Your task to perform on an android device: Toggle the flashlight Image 0: 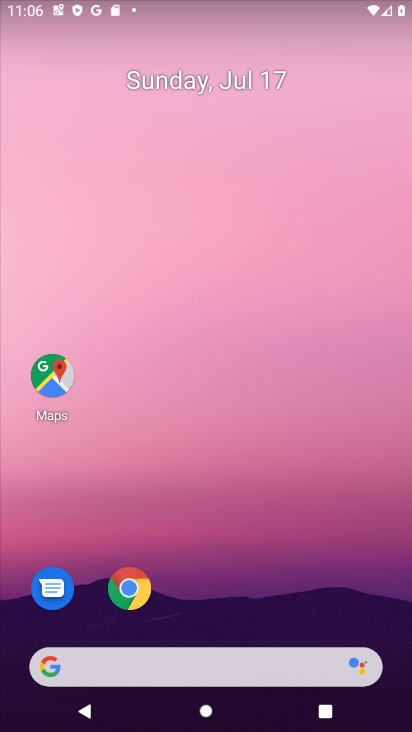
Step 0: drag from (209, 613) to (259, 135)
Your task to perform on an android device: Toggle the flashlight Image 1: 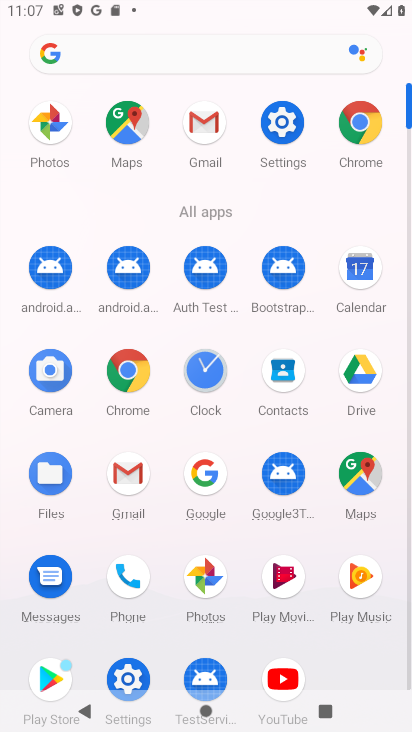
Step 1: click (279, 117)
Your task to perform on an android device: Toggle the flashlight Image 2: 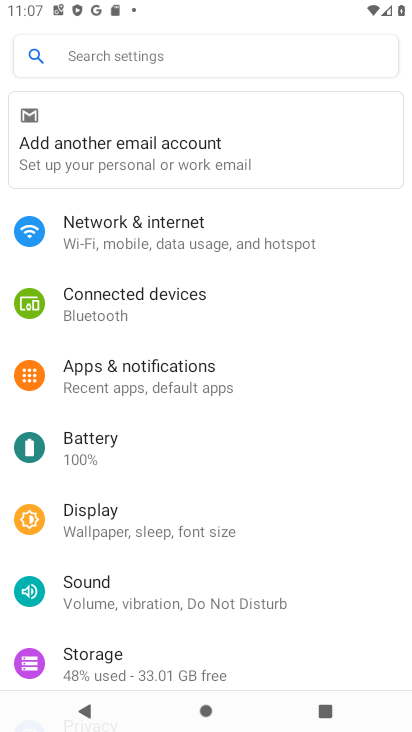
Step 2: click (111, 51)
Your task to perform on an android device: Toggle the flashlight Image 3: 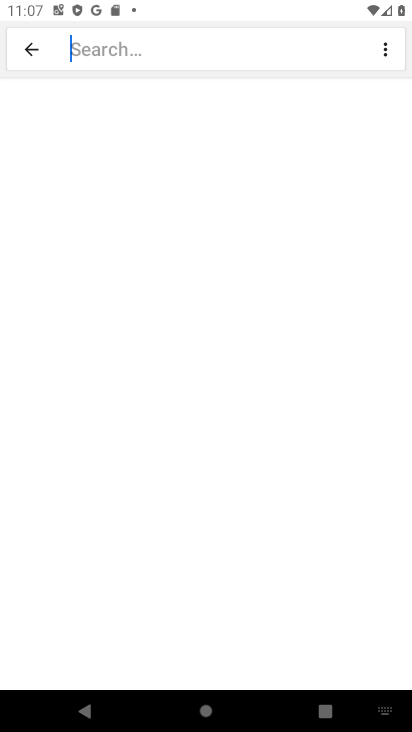
Step 3: type "Flashlight"
Your task to perform on an android device: Toggle the flashlight Image 4: 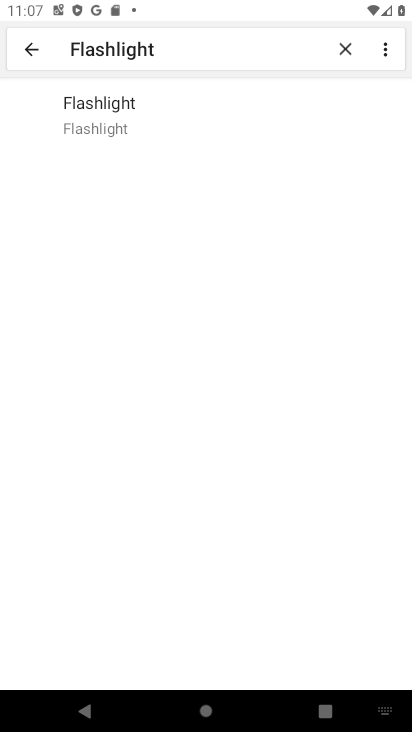
Step 4: click (144, 119)
Your task to perform on an android device: Toggle the flashlight Image 5: 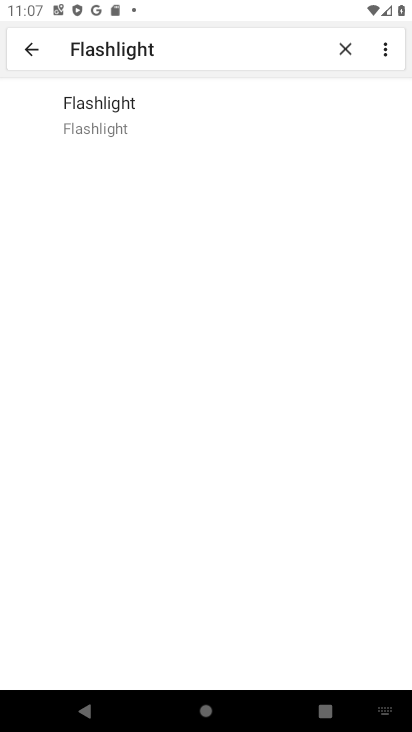
Step 5: click (141, 114)
Your task to perform on an android device: Toggle the flashlight Image 6: 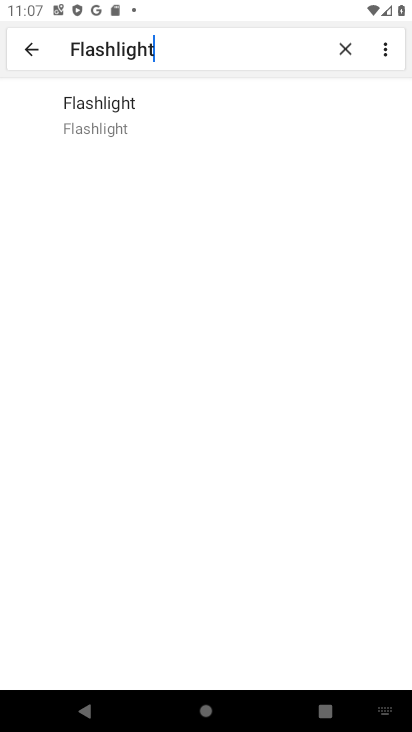
Step 6: task complete